Your task to perform on an android device: Open ESPN.com Image 0: 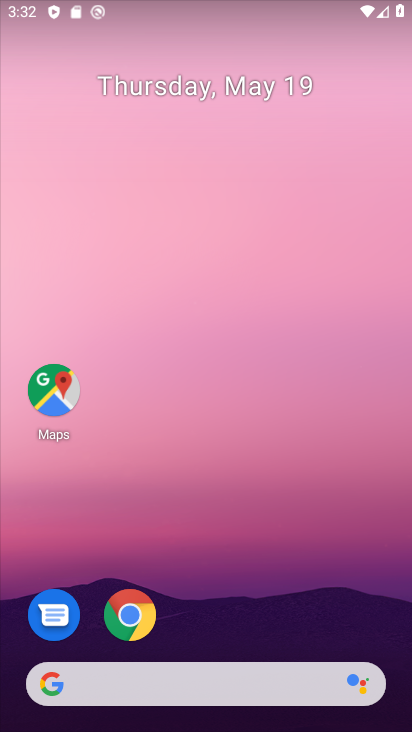
Step 0: click (126, 625)
Your task to perform on an android device: Open ESPN.com Image 1: 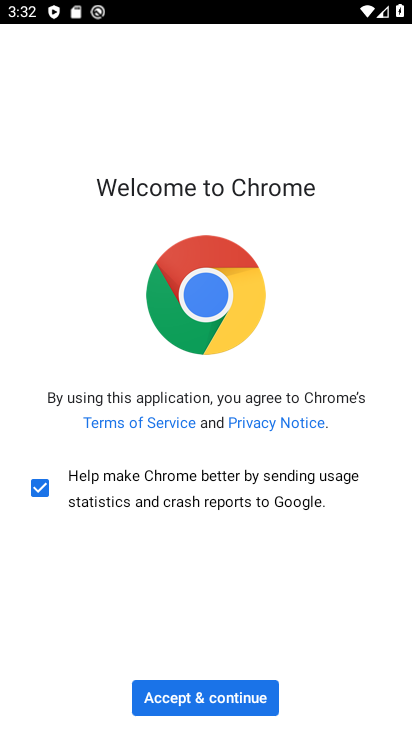
Step 1: click (201, 699)
Your task to perform on an android device: Open ESPN.com Image 2: 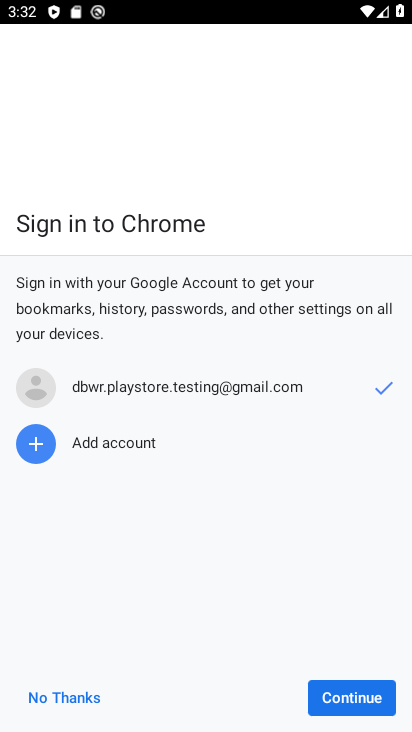
Step 2: click (63, 702)
Your task to perform on an android device: Open ESPN.com Image 3: 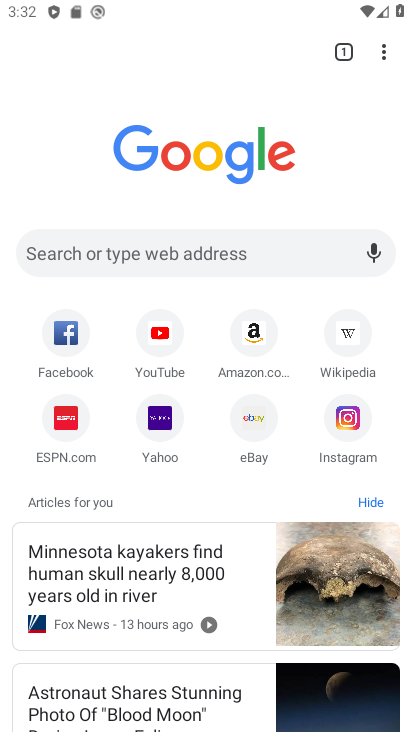
Step 3: click (71, 420)
Your task to perform on an android device: Open ESPN.com Image 4: 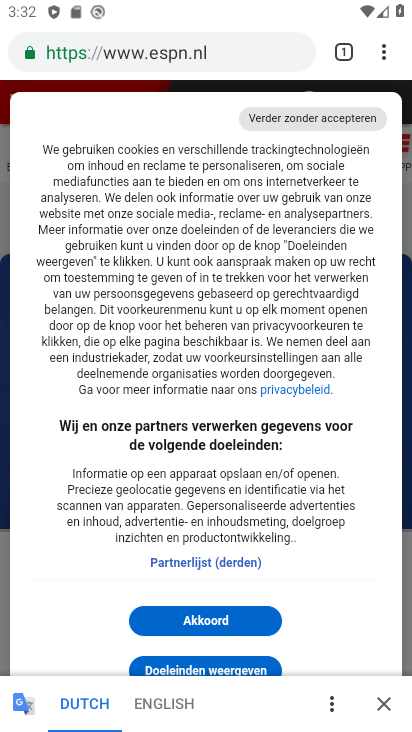
Step 4: task complete